Your task to perform on an android device: check out phone information Image 0: 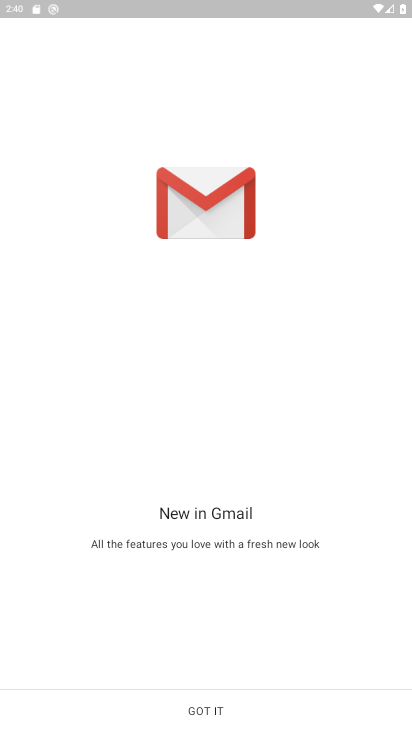
Step 0: press home button
Your task to perform on an android device: check out phone information Image 1: 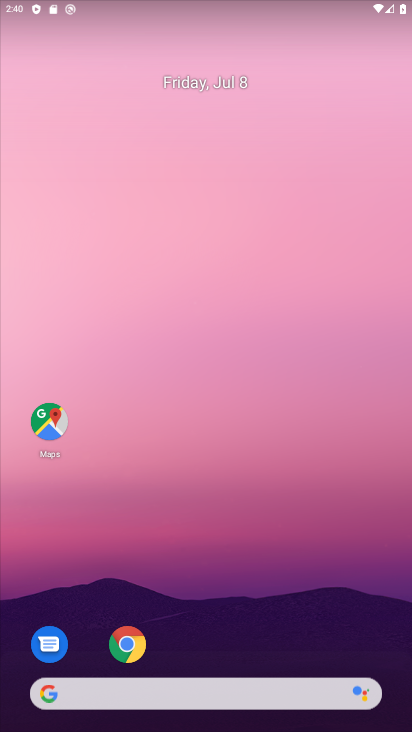
Step 1: drag from (245, 425) to (298, 62)
Your task to perform on an android device: check out phone information Image 2: 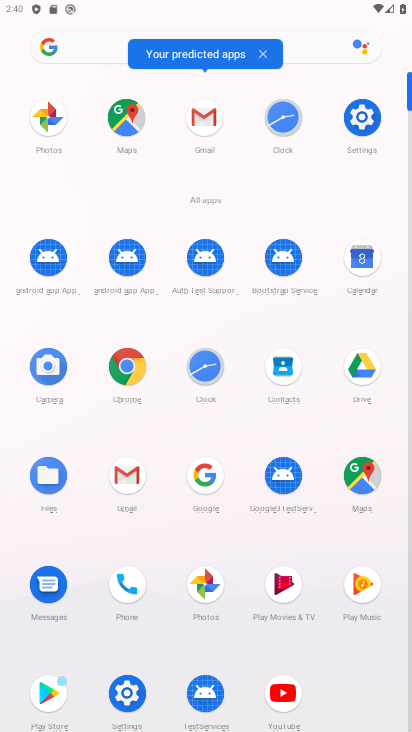
Step 2: drag from (176, 606) to (238, 380)
Your task to perform on an android device: check out phone information Image 3: 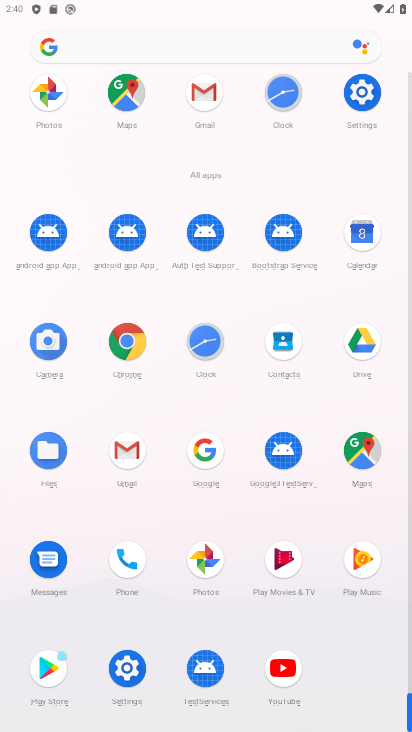
Step 3: click (117, 693)
Your task to perform on an android device: check out phone information Image 4: 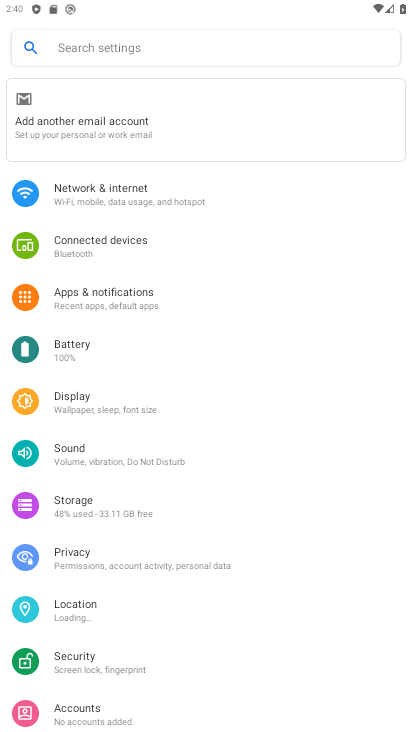
Step 4: drag from (144, 663) to (260, 178)
Your task to perform on an android device: check out phone information Image 5: 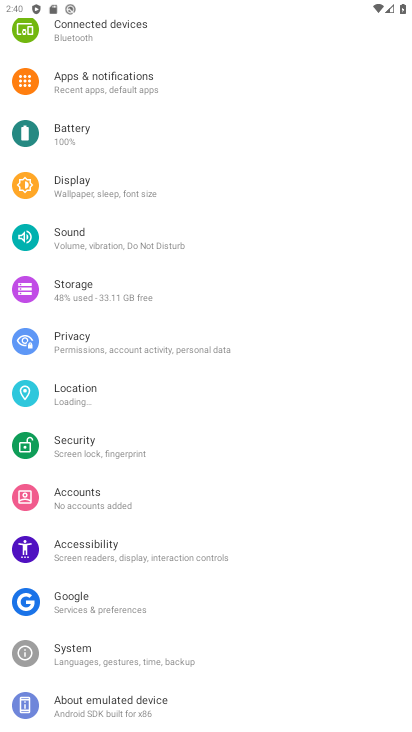
Step 5: click (155, 705)
Your task to perform on an android device: check out phone information Image 6: 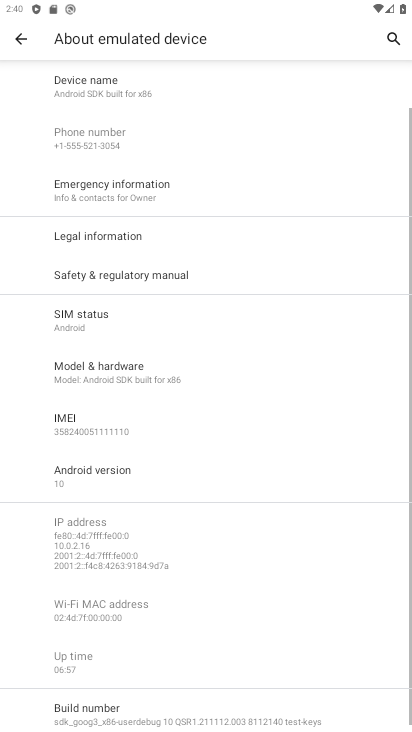
Step 6: task complete